Your task to perform on an android device: open chrome privacy settings Image 0: 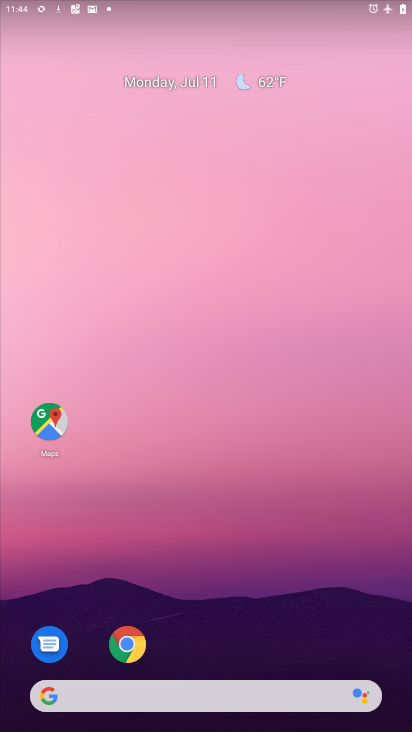
Step 0: drag from (217, 661) to (216, 131)
Your task to perform on an android device: open chrome privacy settings Image 1: 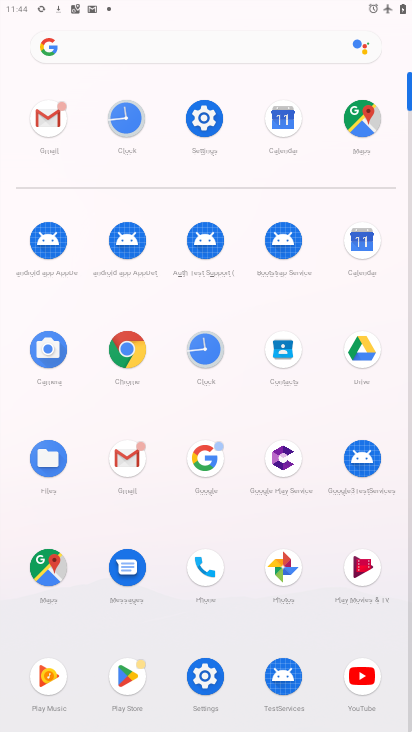
Step 1: click (142, 357)
Your task to perform on an android device: open chrome privacy settings Image 2: 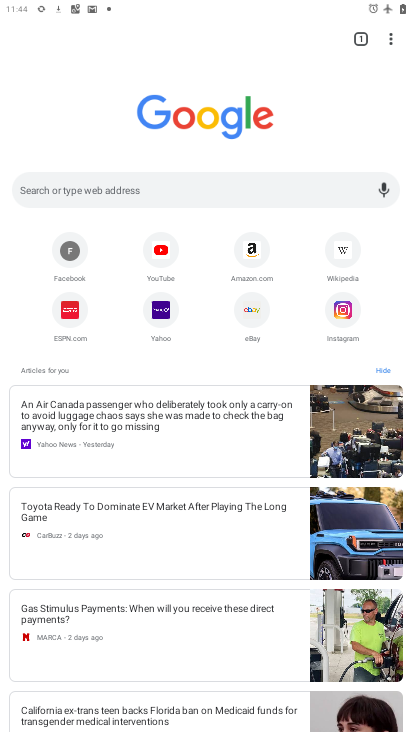
Step 2: drag from (388, 37) to (242, 371)
Your task to perform on an android device: open chrome privacy settings Image 3: 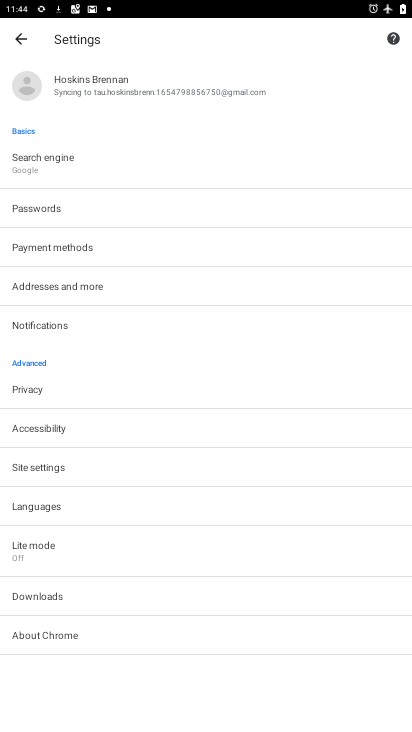
Step 3: click (53, 396)
Your task to perform on an android device: open chrome privacy settings Image 4: 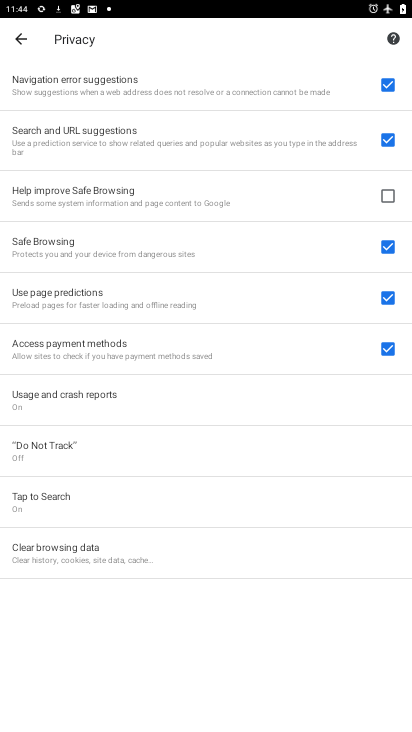
Step 4: task complete